Your task to perform on an android device: Open Google Chrome Image 0: 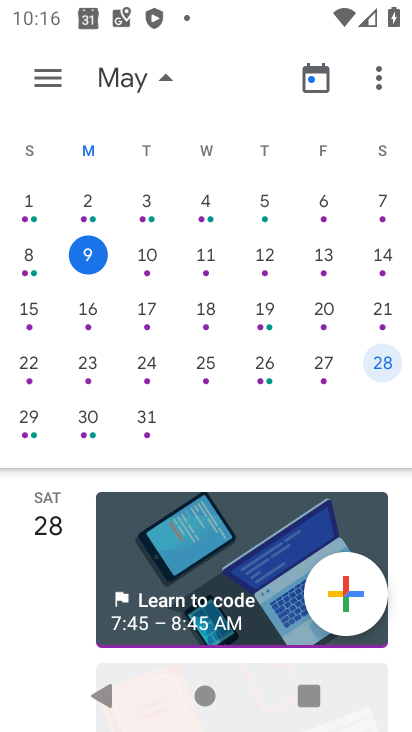
Step 0: press home button
Your task to perform on an android device: Open Google Chrome Image 1: 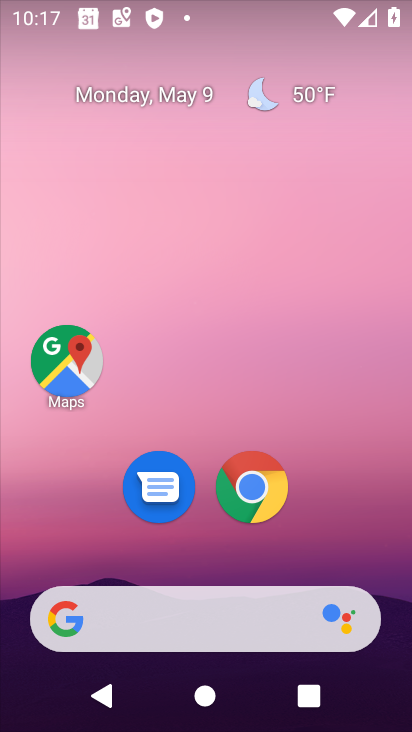
Step 1: click (249, 505)
Your task to perform on an android device: Open Google Chrome Image 2: 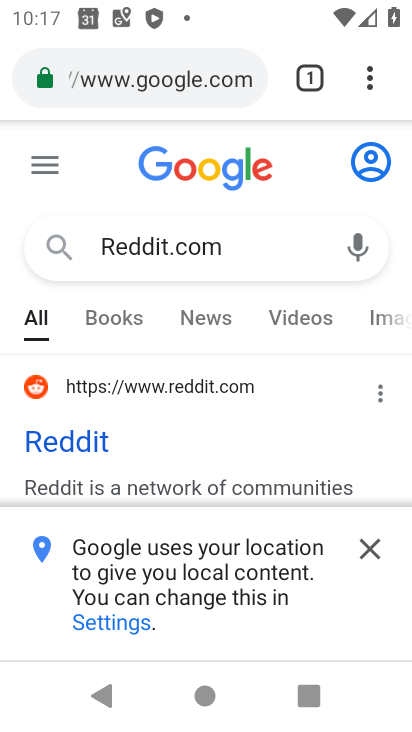
Step 2: task complete